Your task to perform on an android device: see creations saved in the google photos Image 0: 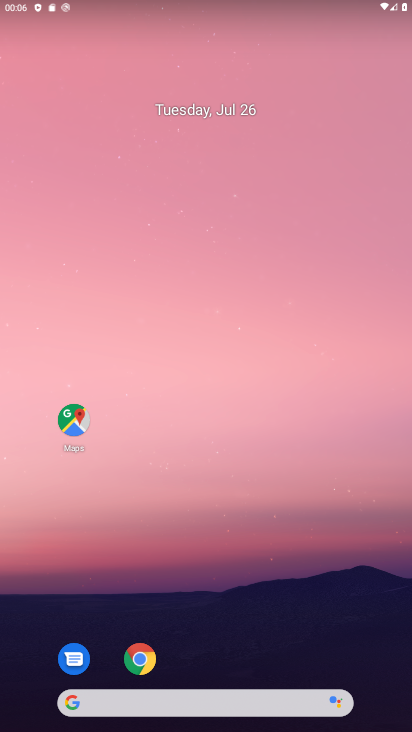
Step 0: drag from (280, 537) to (171, 4)
Your task to perform on an android device: see creations saved in the google photos Image 1: 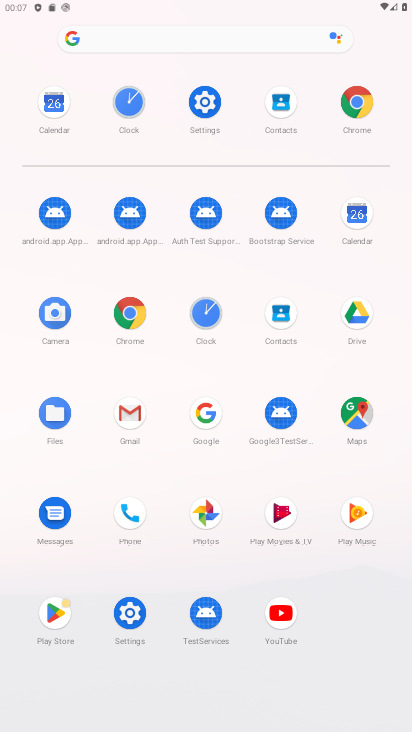
Step 1: click (216, 509)
Your task to perform on an android device: see creations saved in the google photos Image 2: 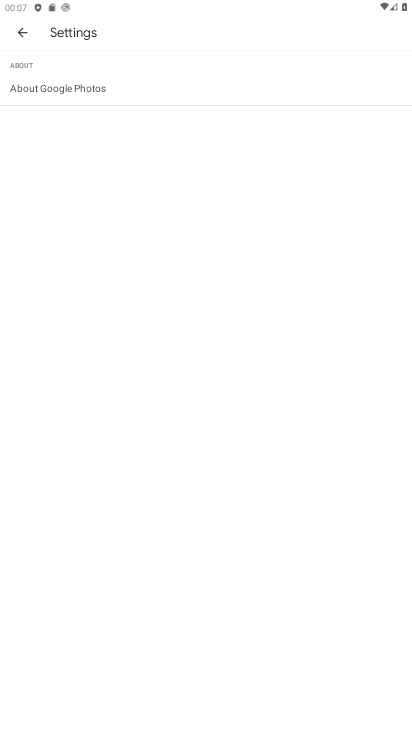
Step 2: click (17, 35)
Your task to perform on an android device: see creations saved in the google photos Image 3: 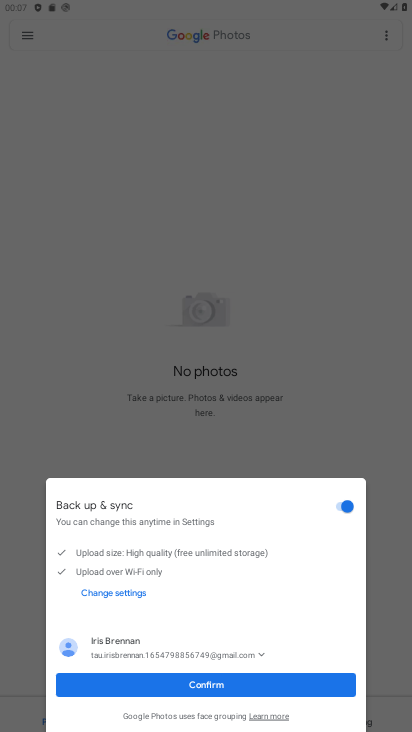
Step 3: click (269, 686)
Your task to perform on an android device: see creations saved in the google photos Image 4: 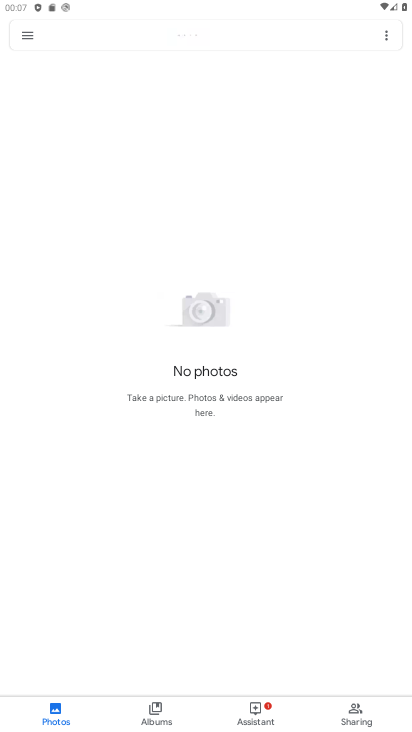
Step 4: click (245, 715)
Your task to perform on an android device: see creations saved in the google photos Image 5: 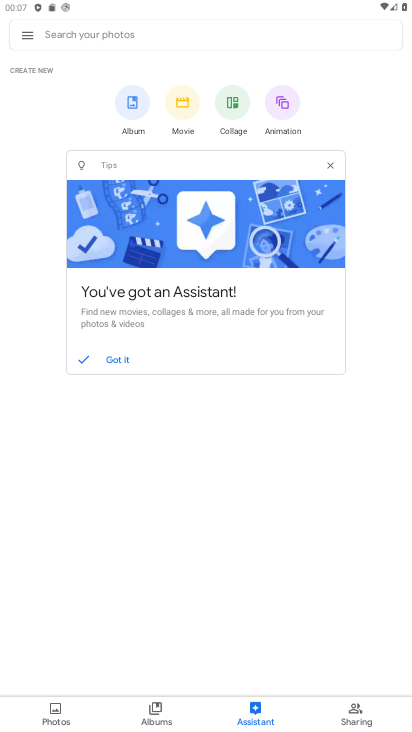
Step 5: click (350, 725)
Your task to perform on an android device: see creations saved in the google photos Image 6: 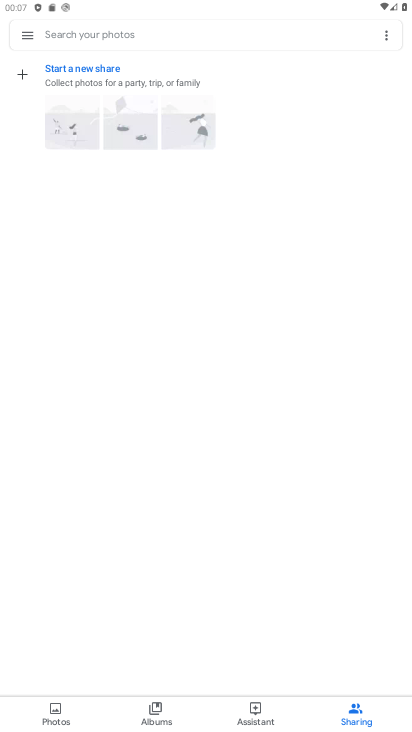
Step 6: click (123, 715)
Your task to perform on an android device: see creations saved in the google photos Image 7: 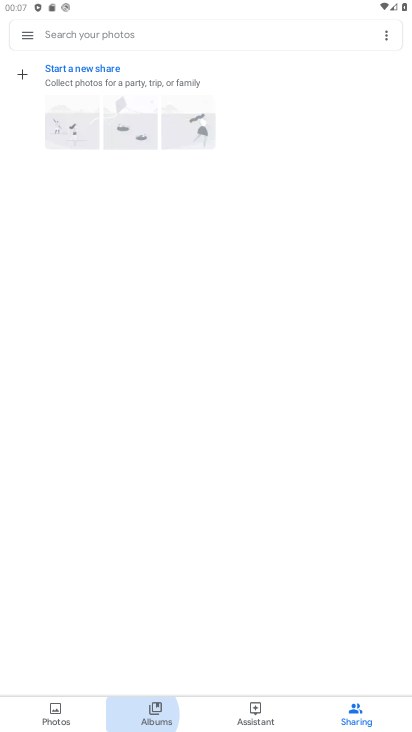
Step 7: click (162, 723)
Your task to perform on an android device: see creations saved in the google photos Image 8: 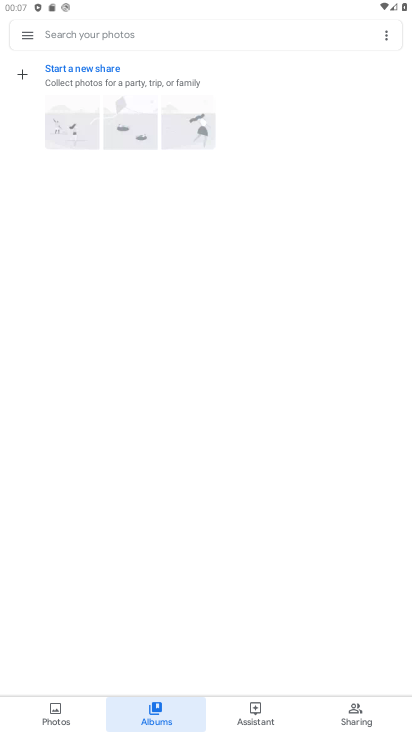
Step 8: click (162, 723)
Your task to perform on an android device: see creations saved in the google photos Image 9: 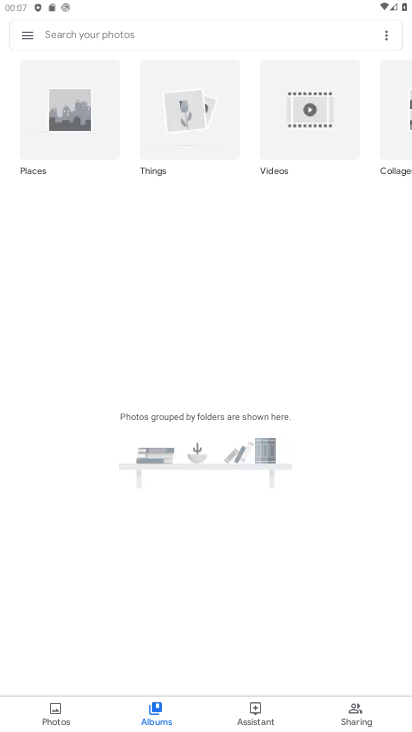
Step 9: task complete